Your task to perform on an android device: Open the calendar and show me this week's events? Image 0: 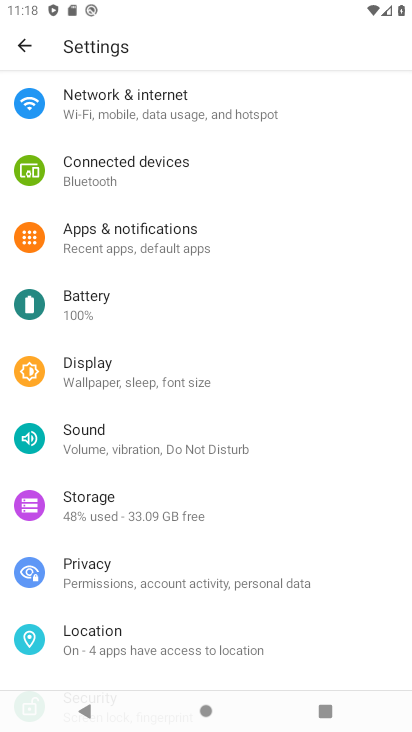
Step 0: press home button
Your task to perform on an android device: Open the calendar and show me this week's events? Image 1: 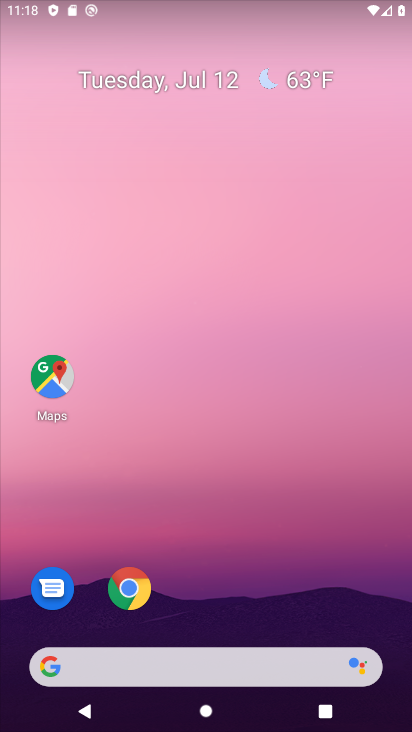
Step 1: drag from (48, 717) to (218, 190)
Your task to perform on an android device: Open the calendar and show me this week's events? Image 2: 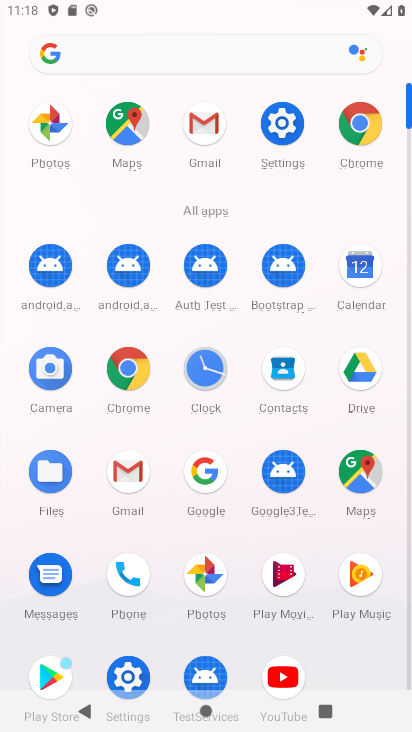
Step 2: click (352, 278)
Your task to perform on an android device: Open the calendar and show me this week's events? Image 3: 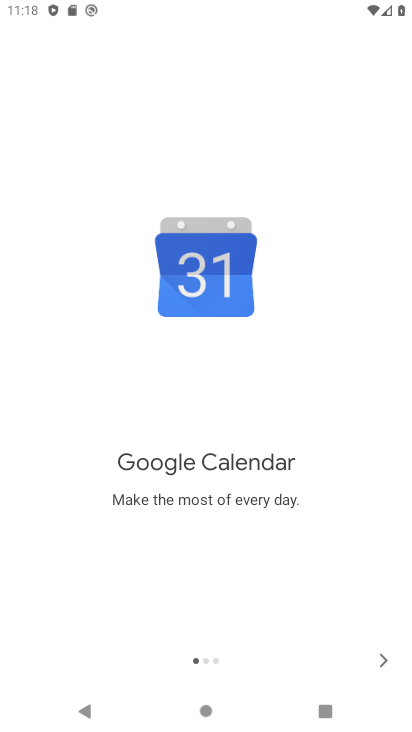
Step 3: click (388, 662)
Your task to perform on an android device: Open the calendar and show me this week's events? Image 4: 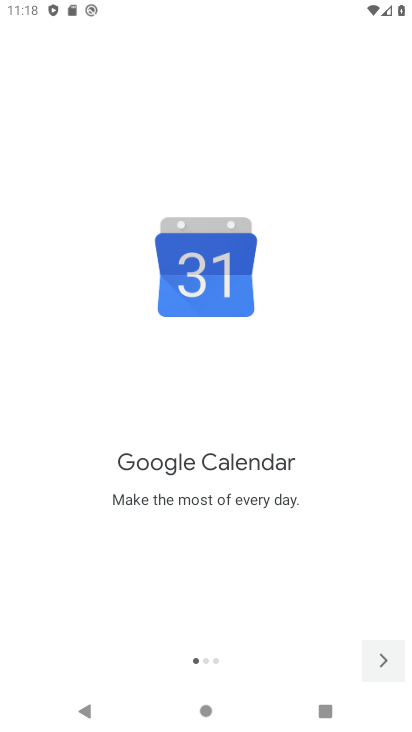
Step 4: click (387, 661)
Your task to perform on an android device: Open the calendar and show me this week's events? Image 5: 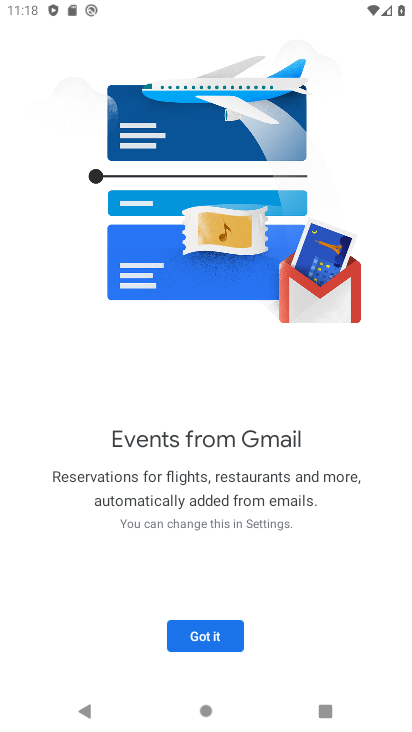
Step 5: click (379, 662)
Your task to perform on an android device: Open the calendar and show me this week's events? Image 6: 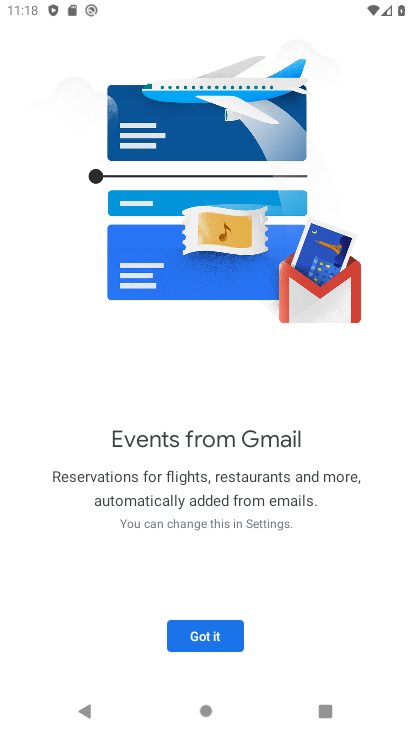
Step 6: click (173, 630)
Your task to perform on an android device: Open the calendar and show me this week's events? Image 7: 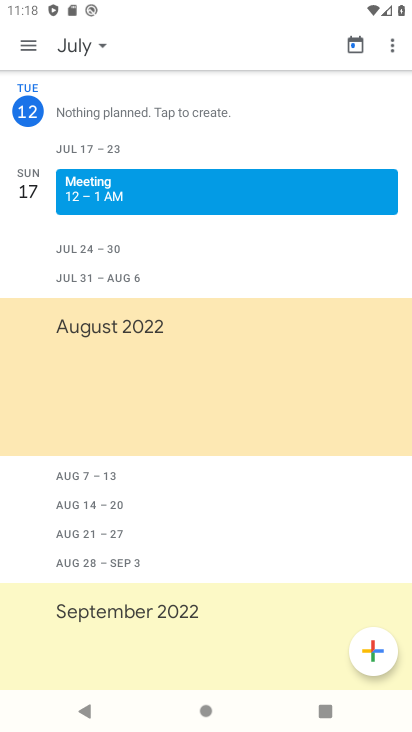
Step 7: drag from (127, 94) to (123, 588)
Your task to perform on an android device: Open the calendar and show me this week's events? Image 8: 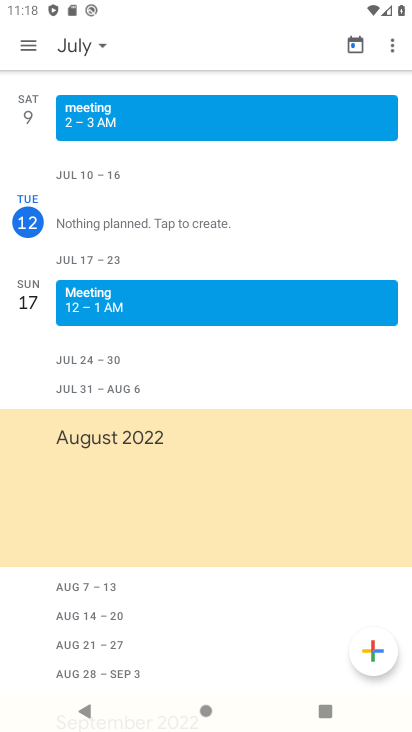
Step 8: drag from (180, 80) to (179, 511)
Your task to perform on an android device: Open the calendar and show me this week's events? Image 9: 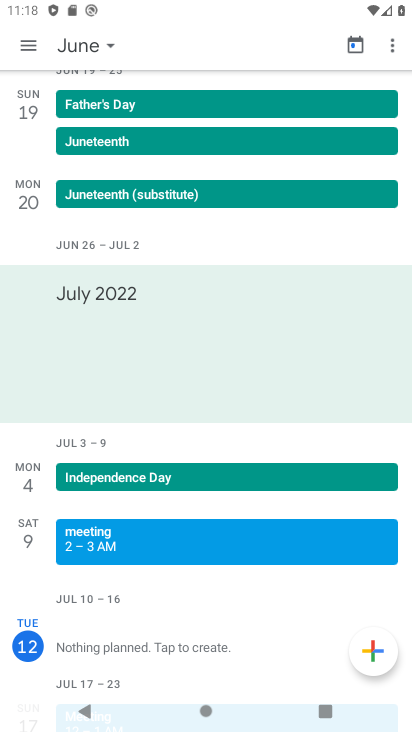
Step 9: drag from (114, 284) to (123, 25)
Your task to perform on an android device: Open the calendar and show me this week's events? Image 10: 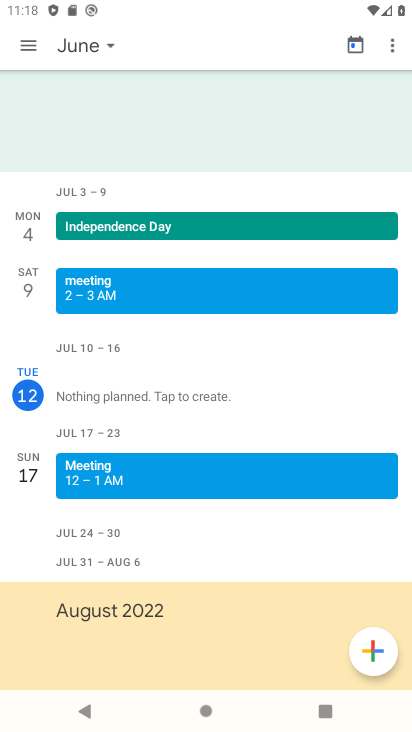
Step 10: click (26, 46)
Your task to perform on an android device: Open the calendar and show me this week's events? Image 11: 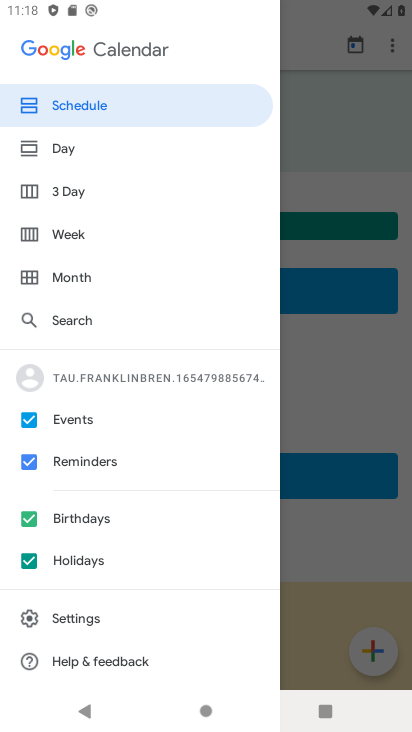
Step 11: click (326, 120)
Your task to perform on an android device: Open the calendar and show me this week's events? Image 12: 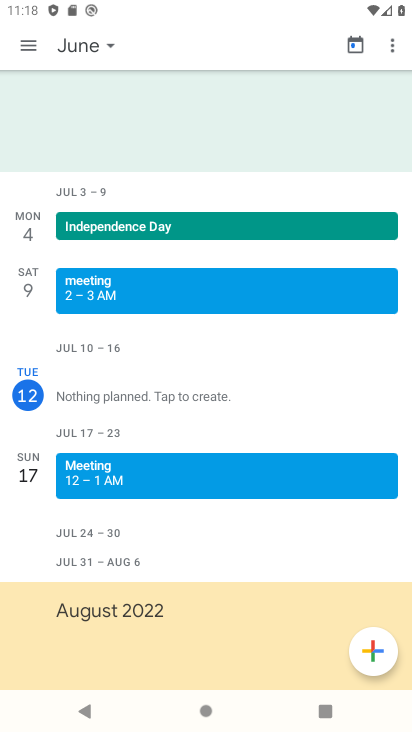
Step 12: click (102, 51)
Your task to perform on an android device: Open the calendar and show me this week's events? Image 13: 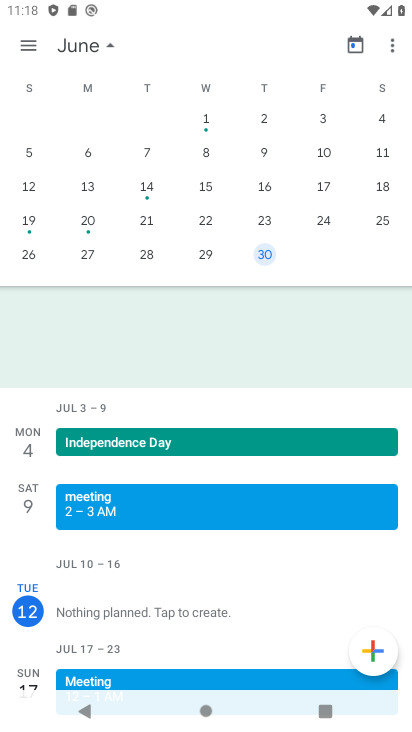
Step 13: task complete